Your task to perform on an android device: Show me recent news Image 0: 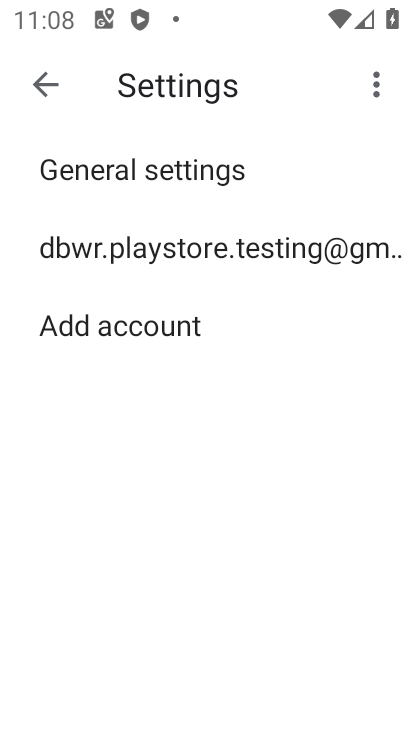
Step 0: press home button
Your task to perform on an android device: Show me recent news Image 1: 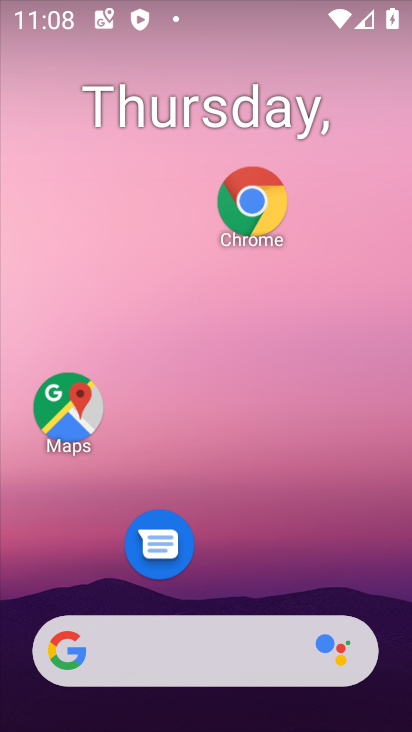
Step 1: task complete